Your task to perform on an android device: change your default location settings in chrome Image 0: 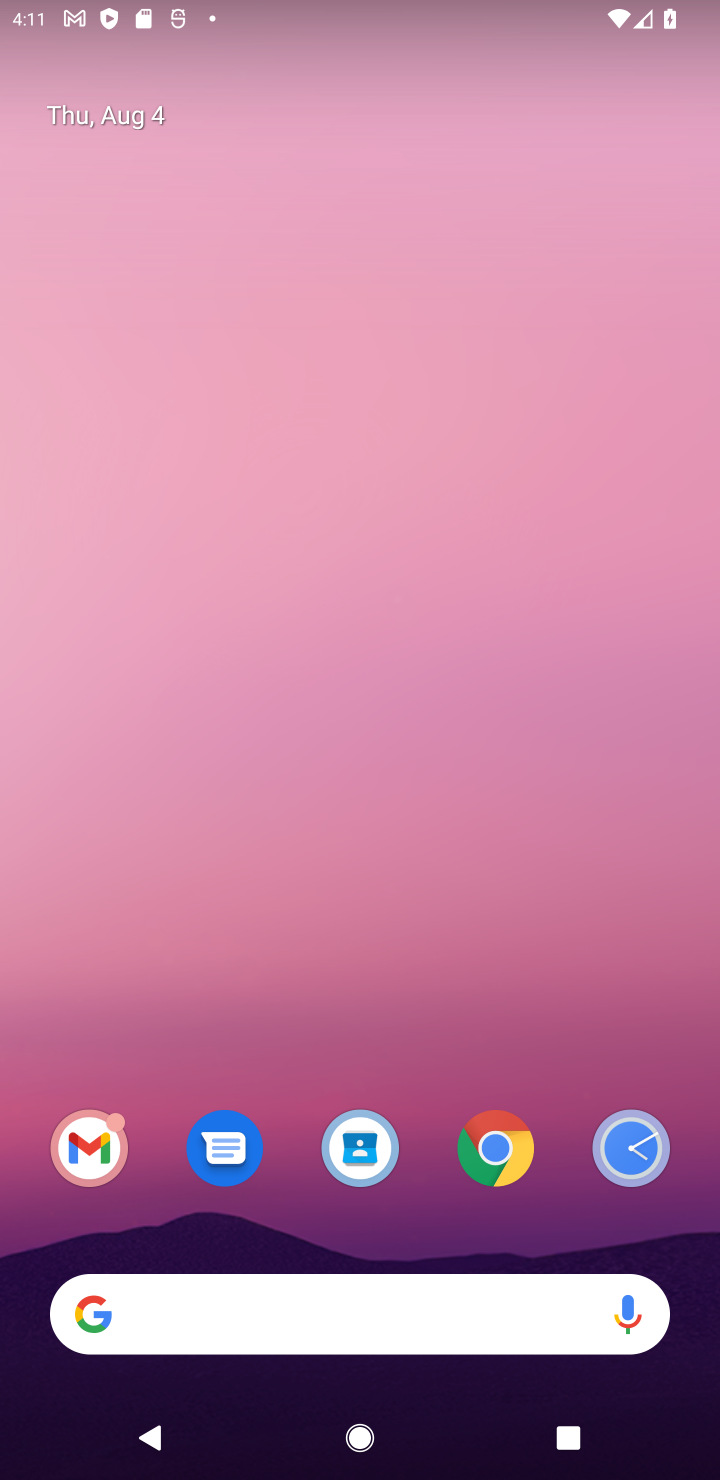
Step 0: click (493, 1152)
Your task to perform on an android device: change your default location settings in chrome Image 1: 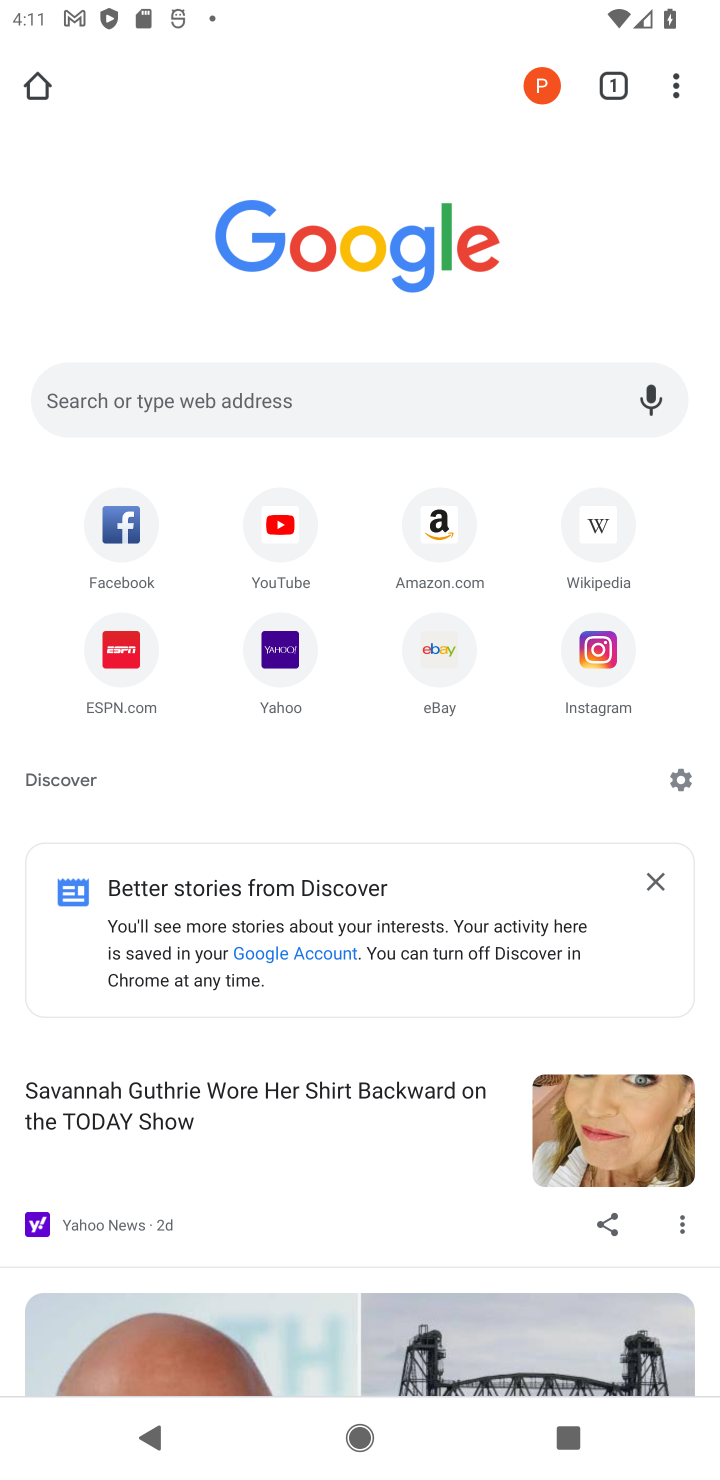
Step 1: click (669, 97)
Your task to perform on an android device: change your default location settings in chrome Image 2: 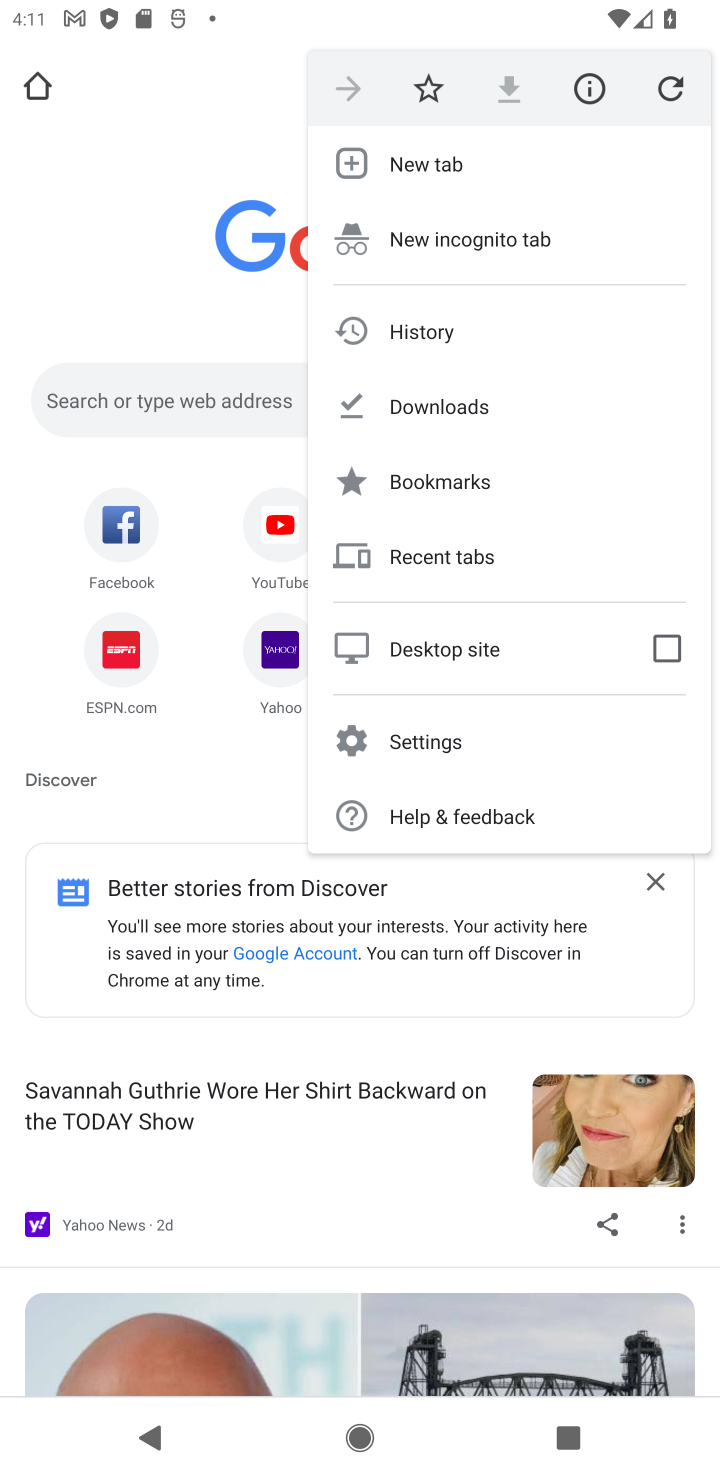
Step 2: click (416, 724)
Your task to perform on an android device: change your default location settings in chrome Image 3: 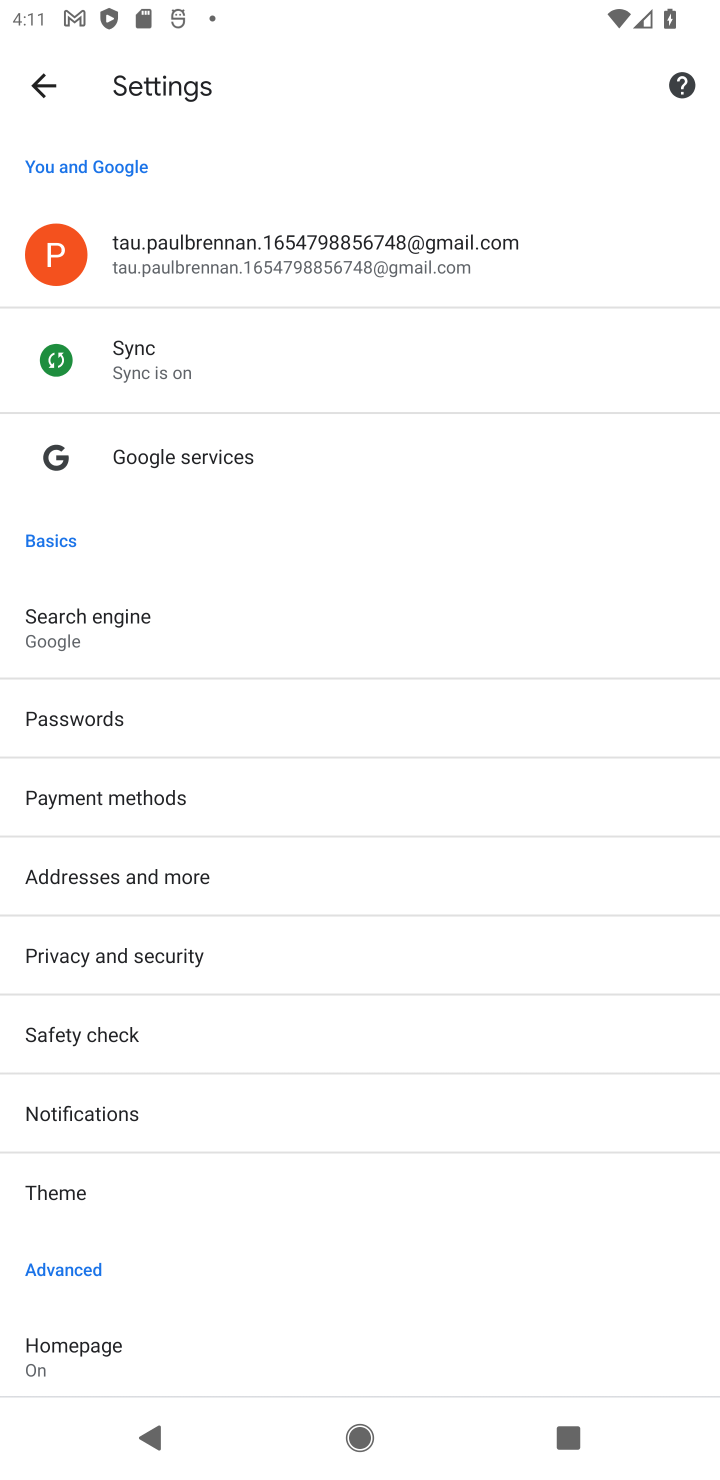
Step 3: drag from (307, 1248) to (368, 631)
Your task to perform on an android device: change your default location settings in chrome Image 4: 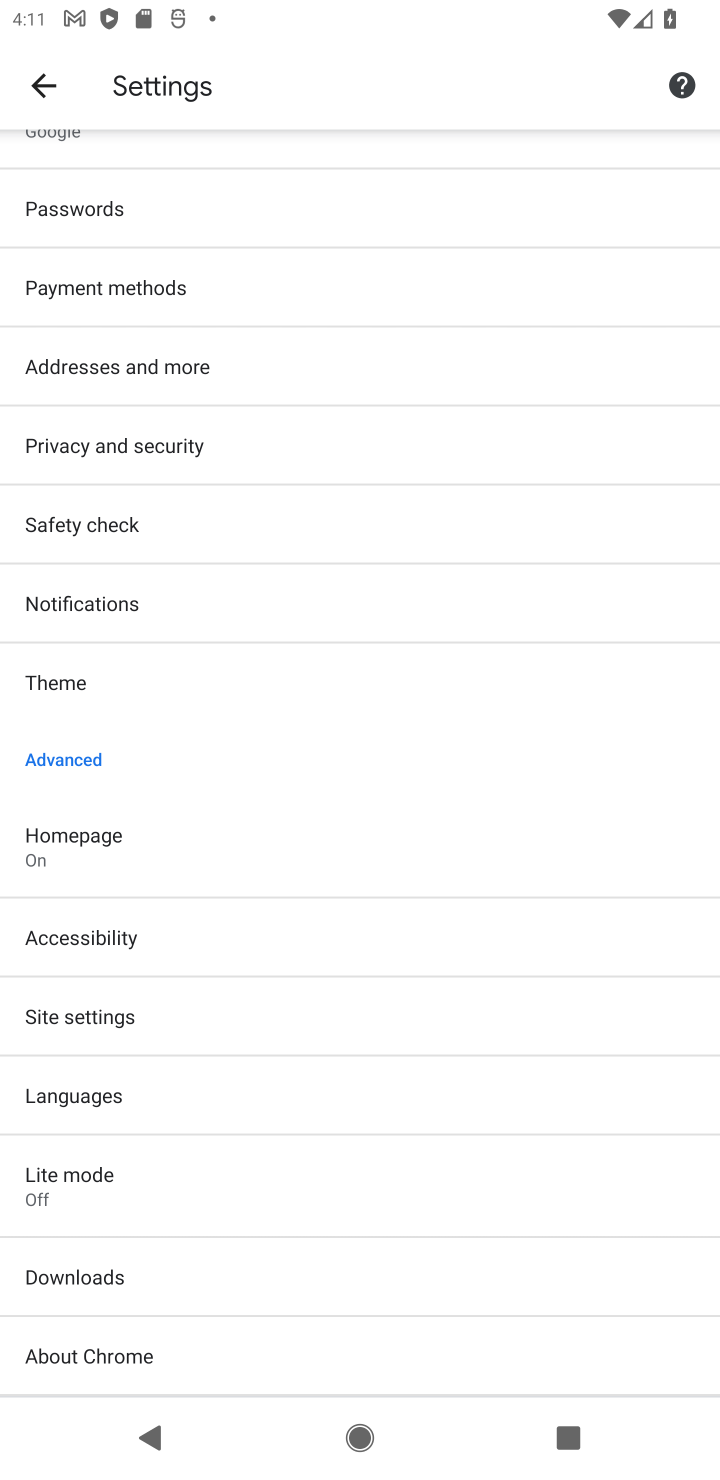
Step 4: click (71, 1022)
Your task to perform on an android device: change your default location settings in chrome Image 5: 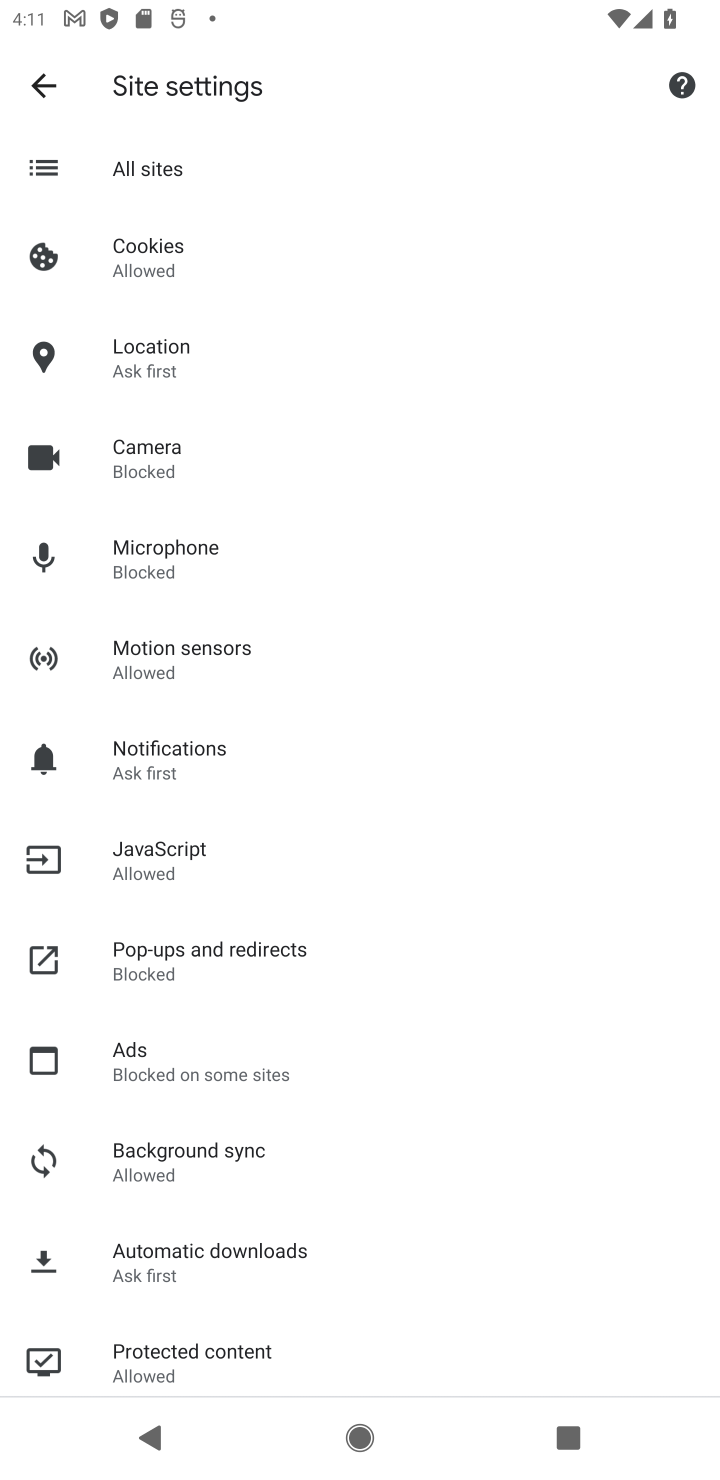
Step 5: click (135, 338)
Your task to perform on an android device: change your default location settings in chrome Image 6: 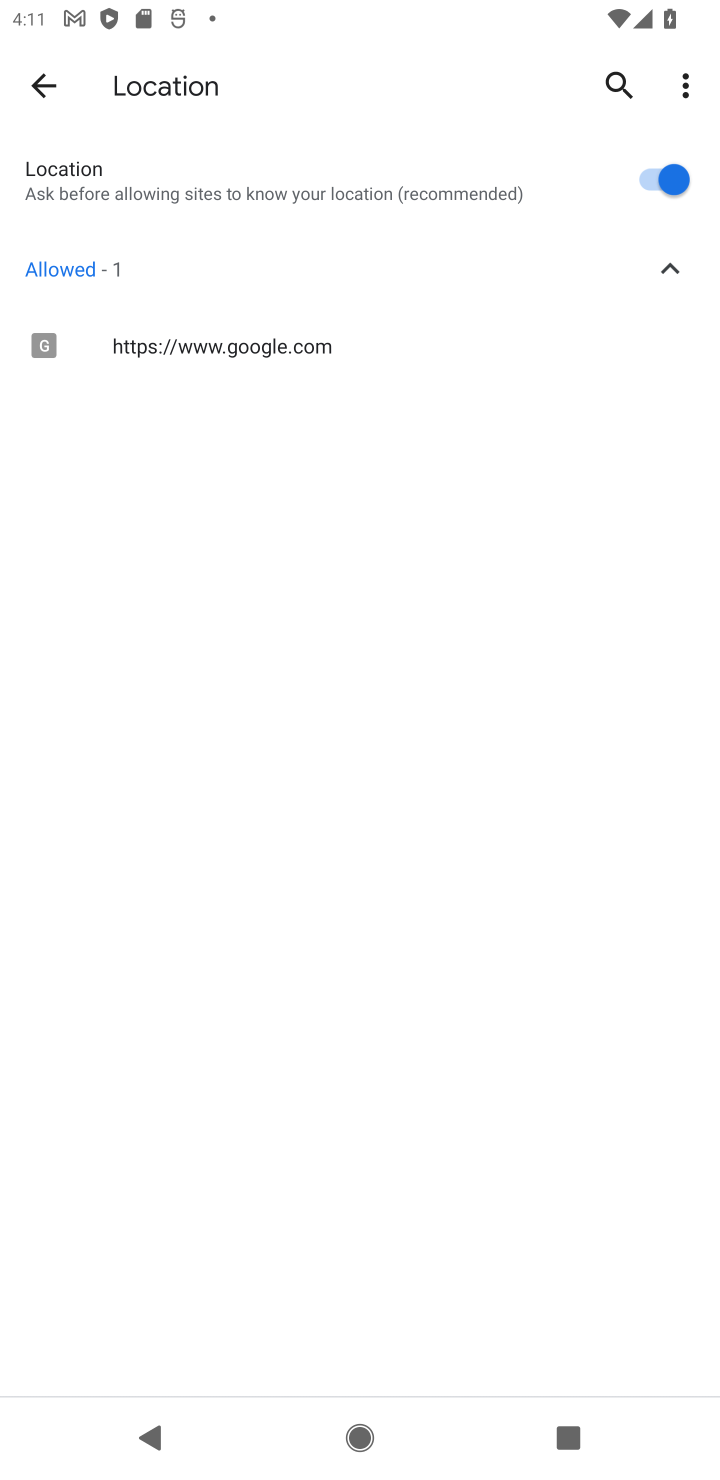
Step 6: click (642, 163)
Your task to perform on an android device: change your default location settings in chrome Image 7: 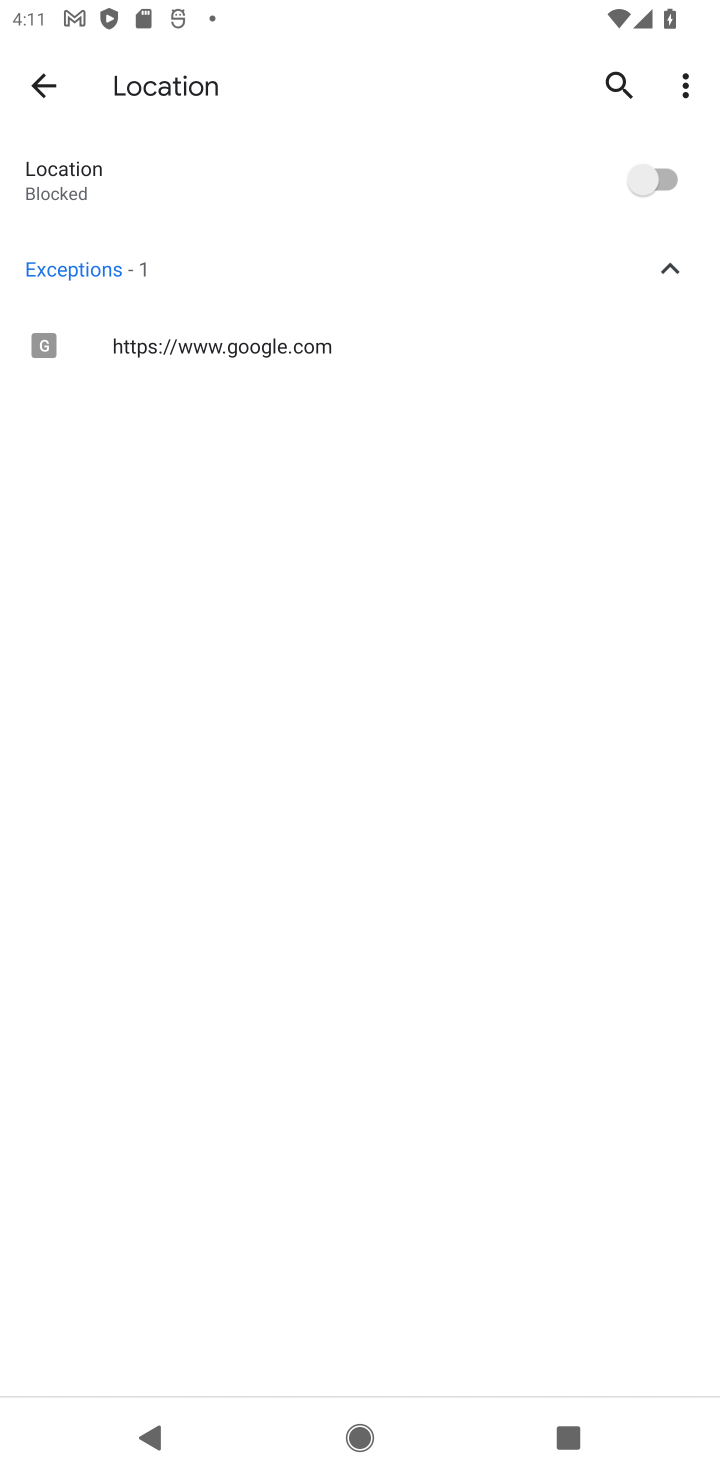
Step 7: task complete